Your task to perform on an android device: star an email in the gmail app Image 0: 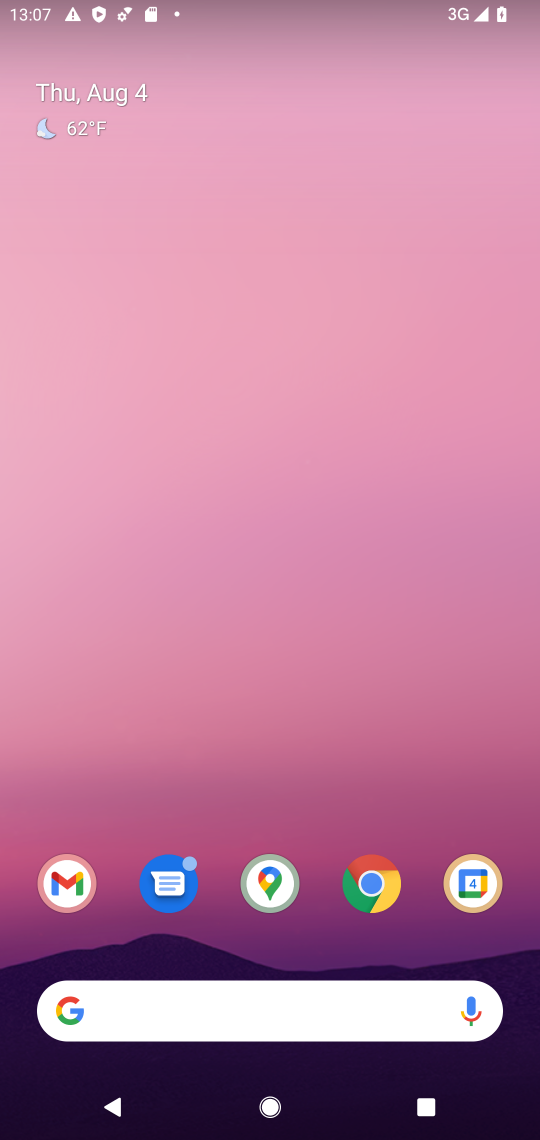
Step 0: drag from (267, 930) to (262, 525)
Your task to perform on an android device: star an email in the gmail app Image 1: 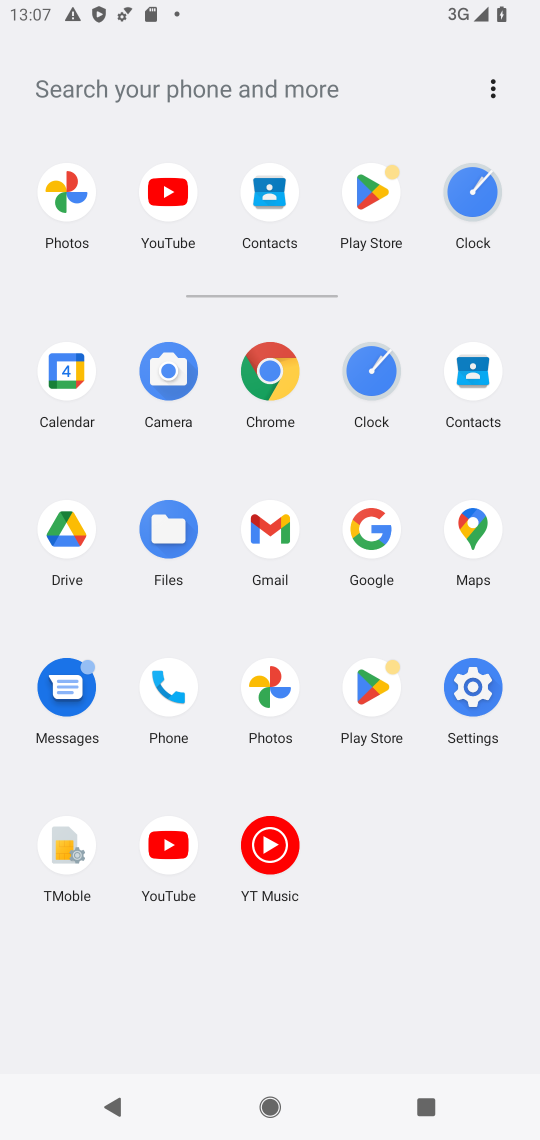
Step 1: click (258, 523)
Your task to perform on an android device: star an email in the gmail app Image 2: 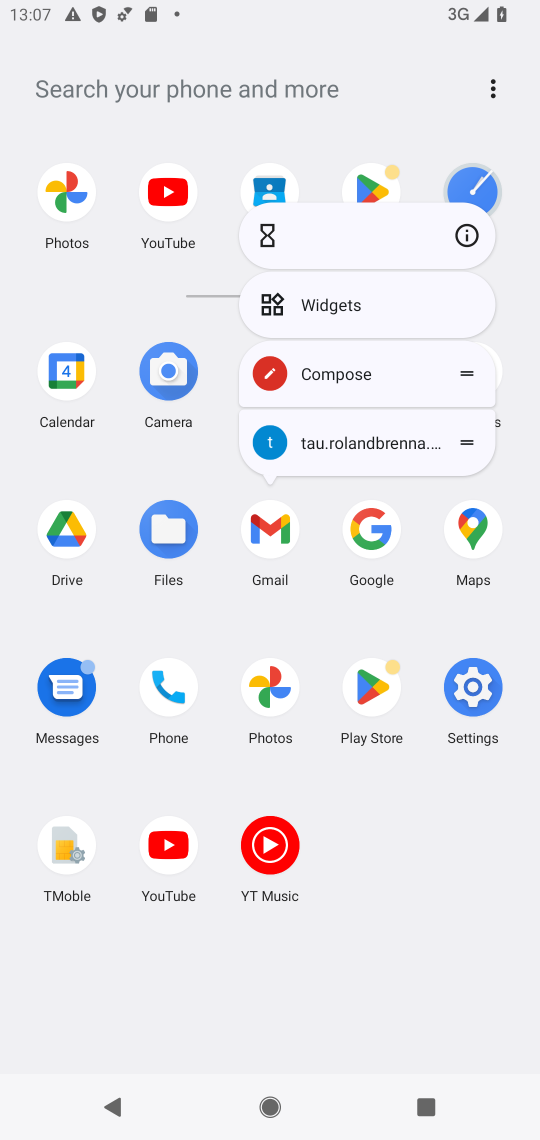
Step 2: click (478, 237)
Your task to perform on an android device: star an email in the gmail app Image 3: 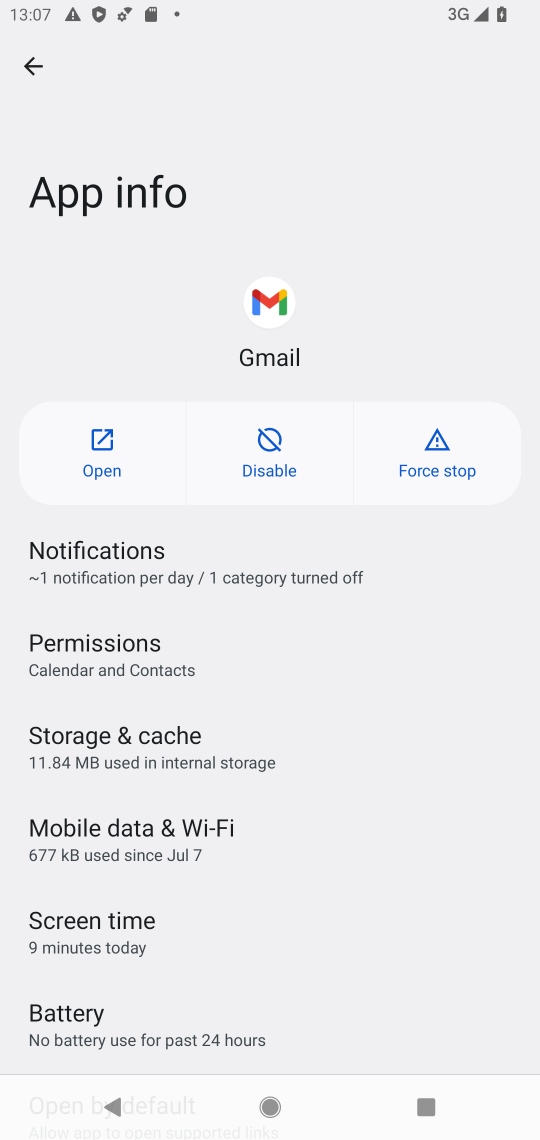
Step 3: click (92, 459)
Your task to perform on an android device: star an email in the gmail app Image 4: 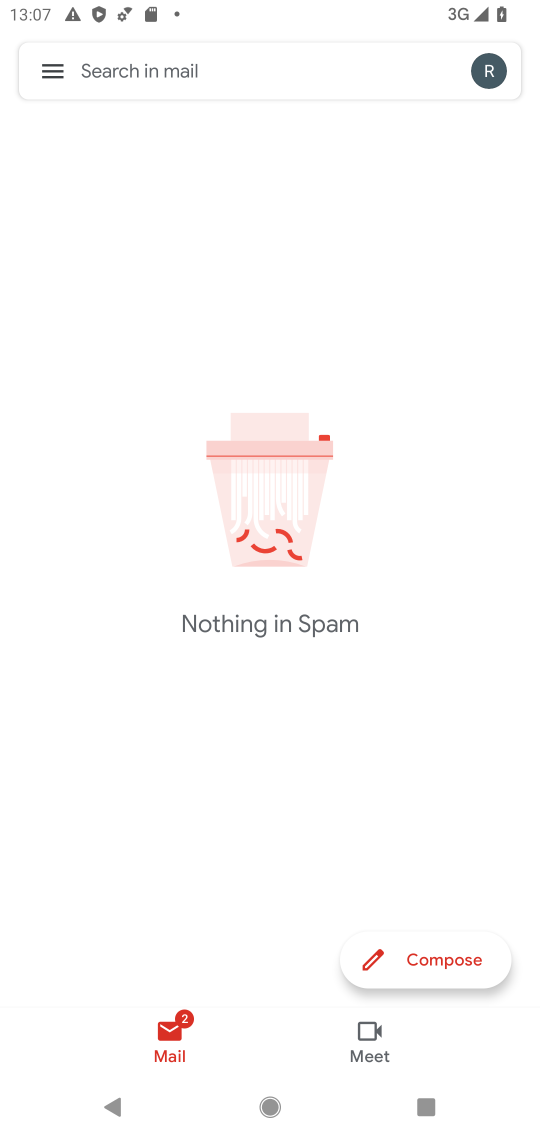
Step 4: drag from (203, 800) to (202, 298)
Your task to perform on an android device: star an email in the gmail app Image 5: 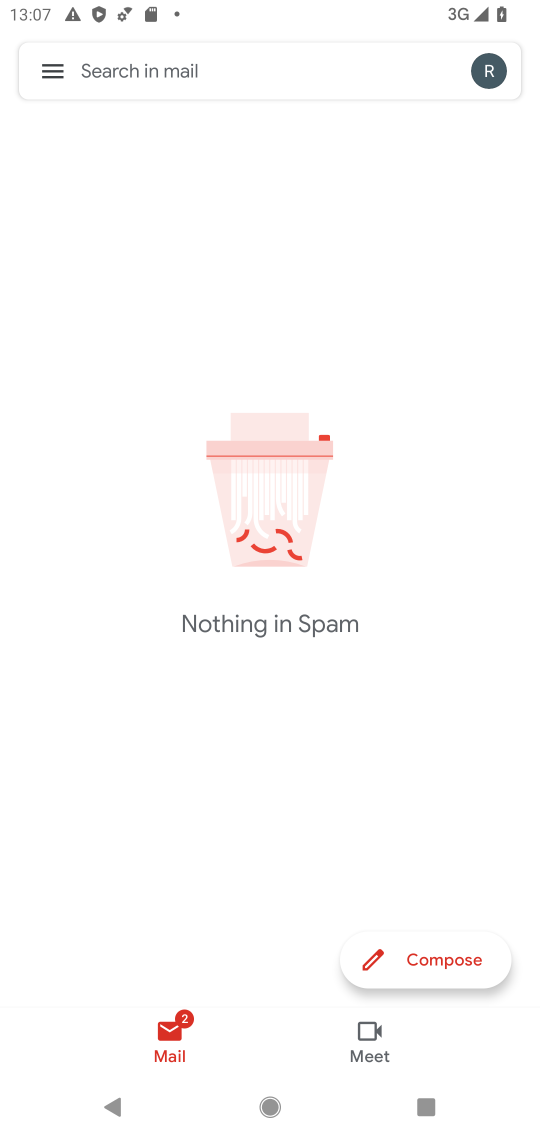
Step 5: click (47, 81)
Your task to perform on an android device: star an email in the gmail app Image 6: 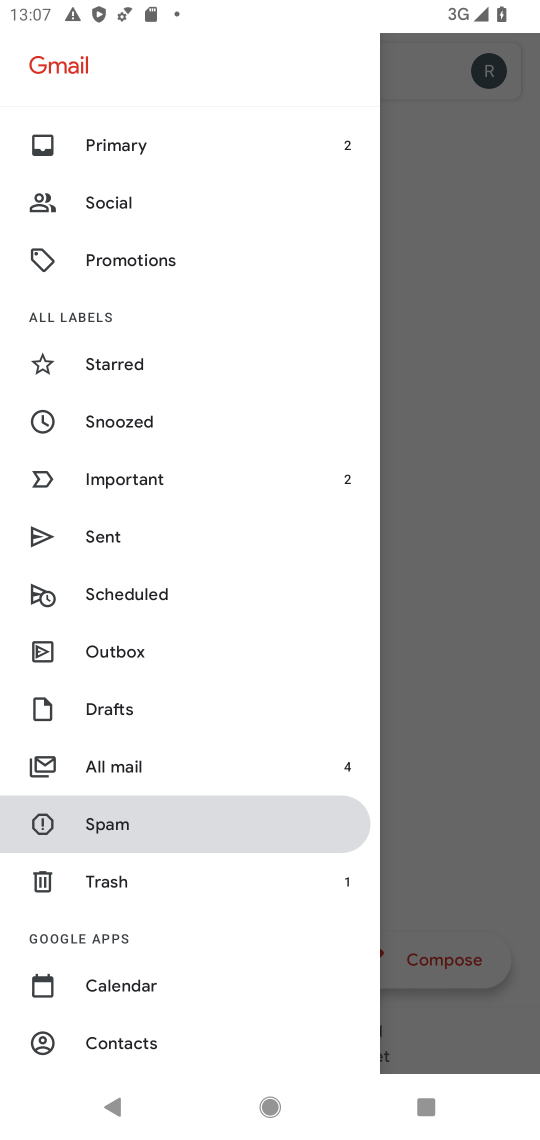
Step 6: click (119, 360)
Your task to perform on an android device: star an email in the gmail app Image 7: 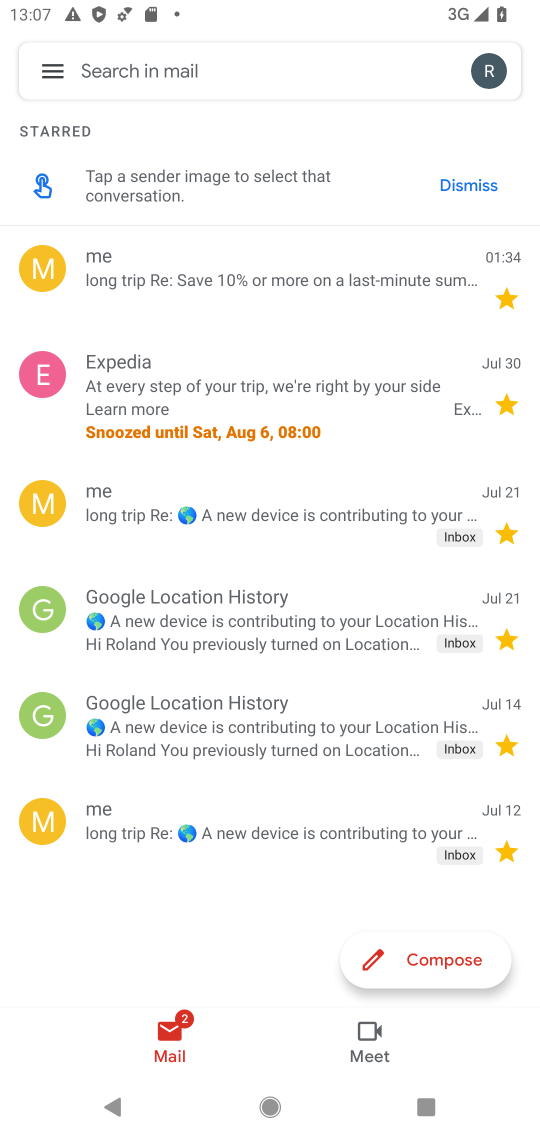
Step 7: click (56, 66)
Your task to perform on an android device: star an email in the gmail app Image 8: 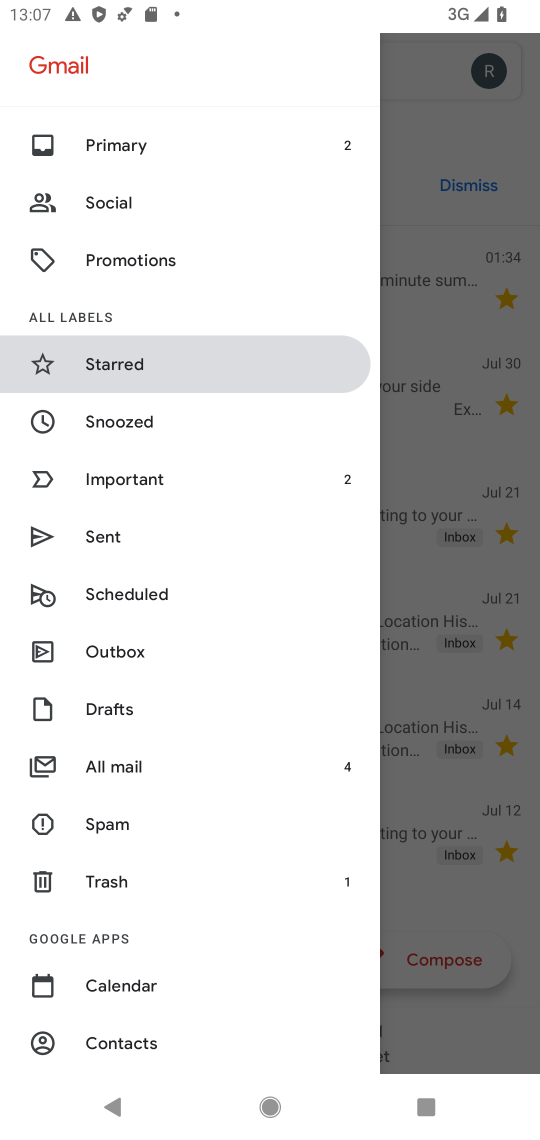
Step 8: click (142, 169)
Your task to perform on an android device: star an email in the gmail app Image 9: 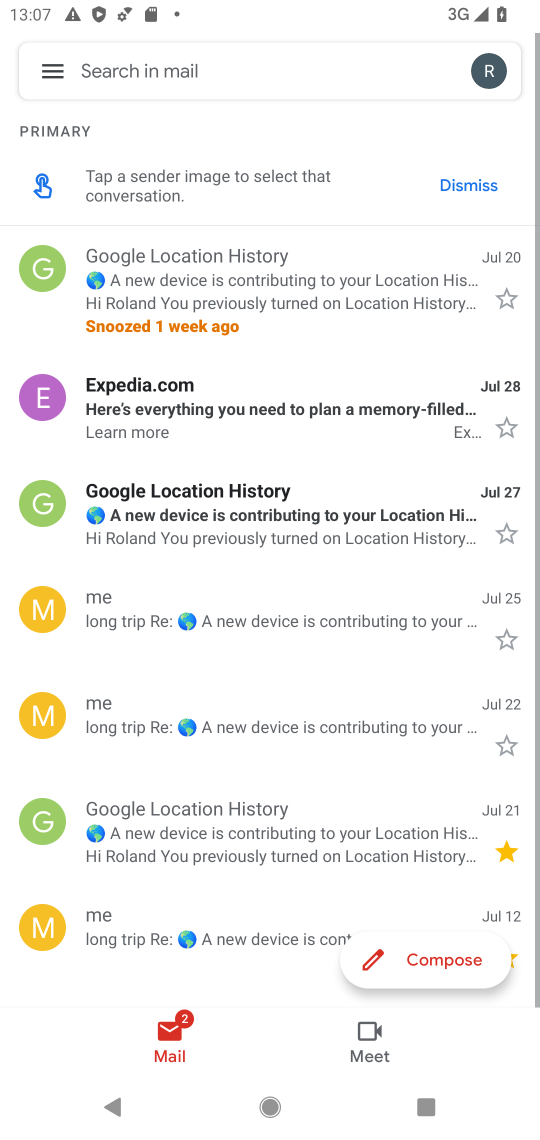
Step 9: click (502, 426)
Your task to perform on an android device: star an email in the gmail app Image 10: 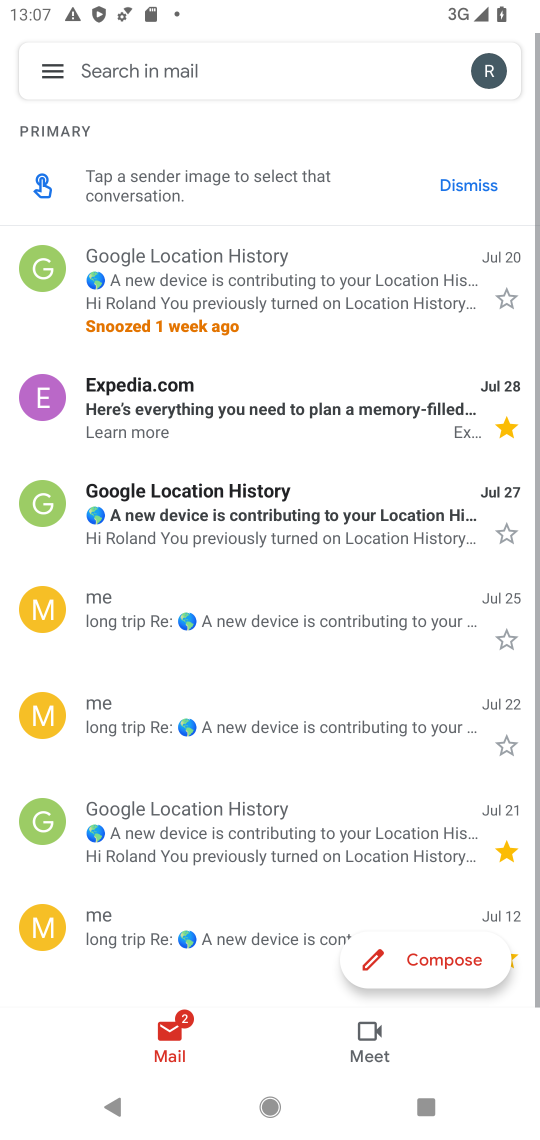
Step 10: task complete